Your task to perform on an android device: set the timer Image 0: 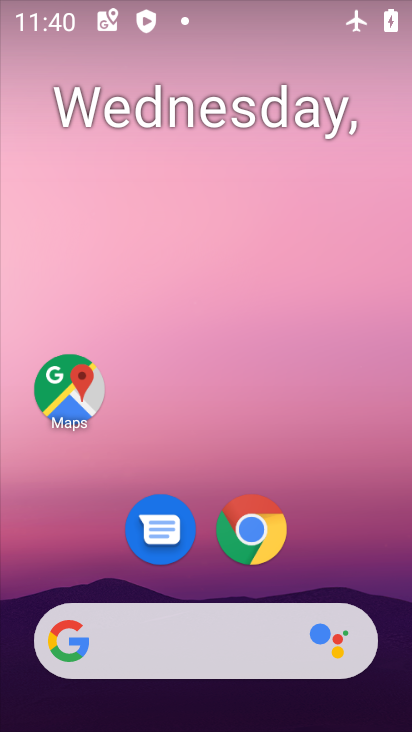
Step 0: drag from (233, 577) to (178, 79)
Your task to perform on an android device: set the timer Image 1: 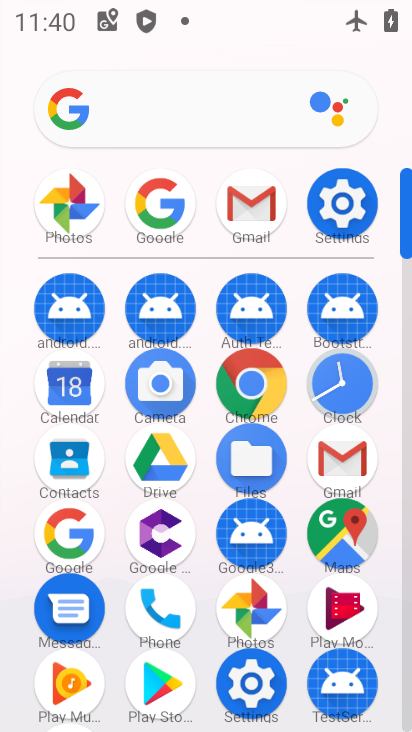
Step 1: click (348, 385)
Your task to perform on an android device: set the timer Image 2: 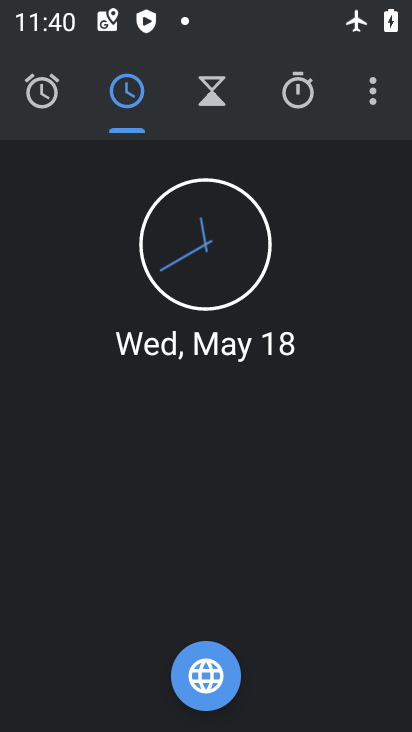
Step 2: click (314, 123)
Your task to perform on an android device: set the timer Image 3: 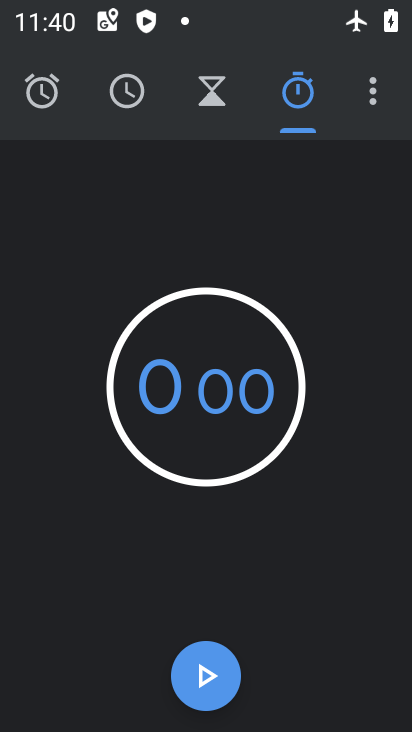
Step 3: click (195, 114)
Your task to perform on an android device: set the timer Image 4: 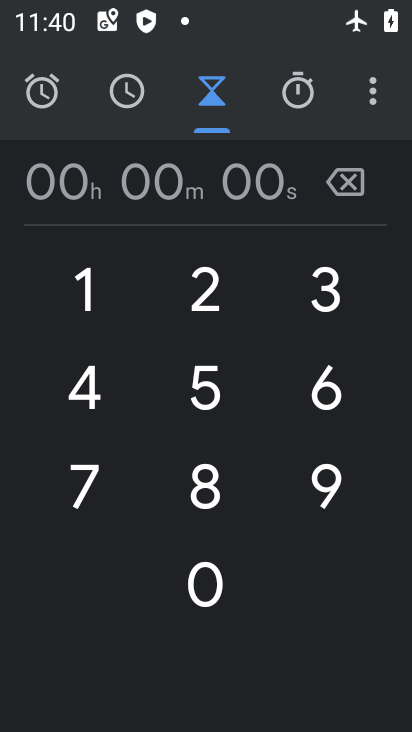
Step 4: click (206, 295)
Your task to perform on an android device: set the timer Image 5: 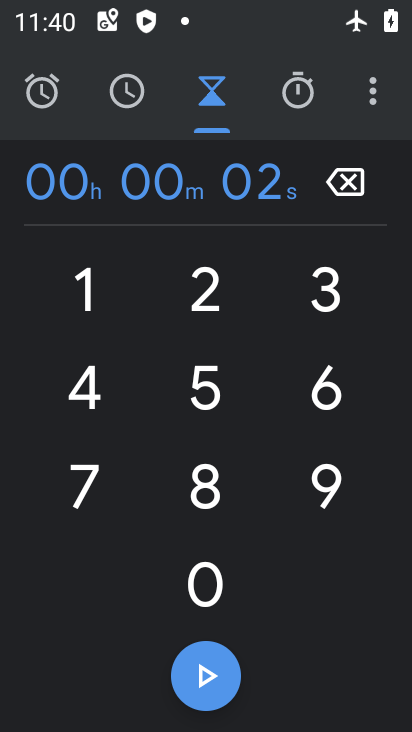
Step 5: click (217, 658)
Your task to perform on an android device: set the timer Image 6: 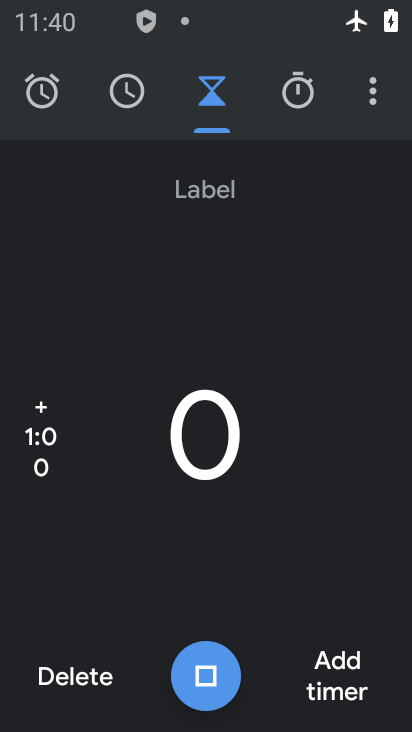
Step 6: task complete